Your task to perform on an android device: What is the news today? Image 0: 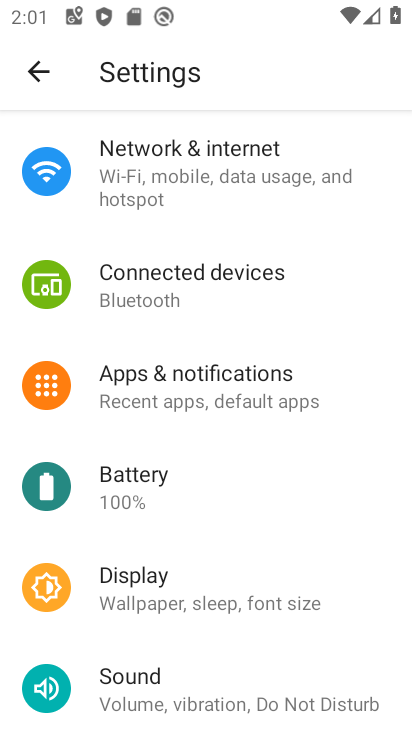
Step 0: press home button
Your task to perform on an android device: What is the news today? Image 1: 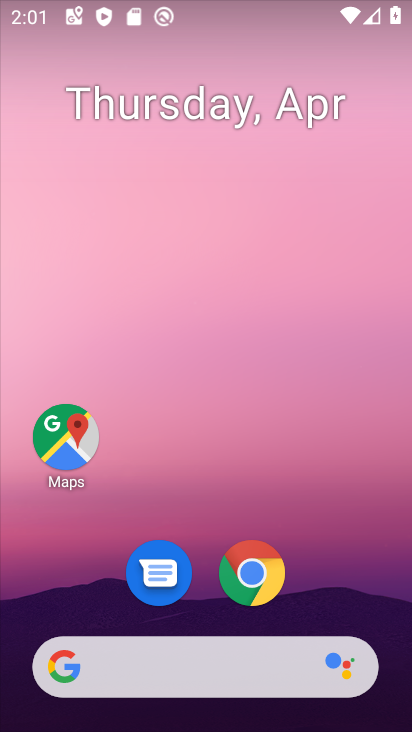
Step 1: drag from (333, 535) to (238, 23)
Your task to perform on an android device: What is the news today? Image 2: 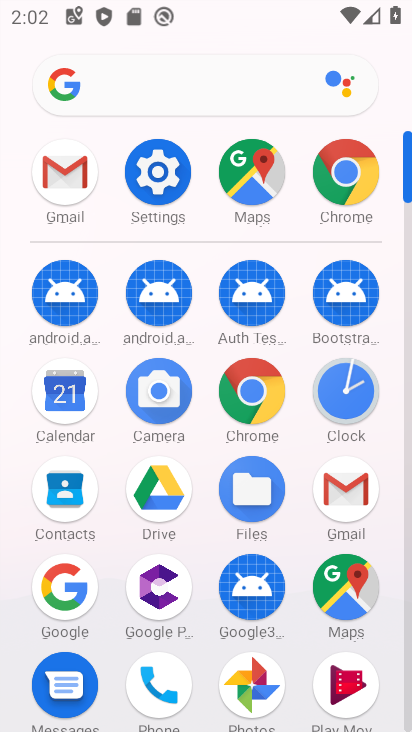
Step 2: click (247, 389)
Your task to perform on an android device: What is the news today? Image 3: 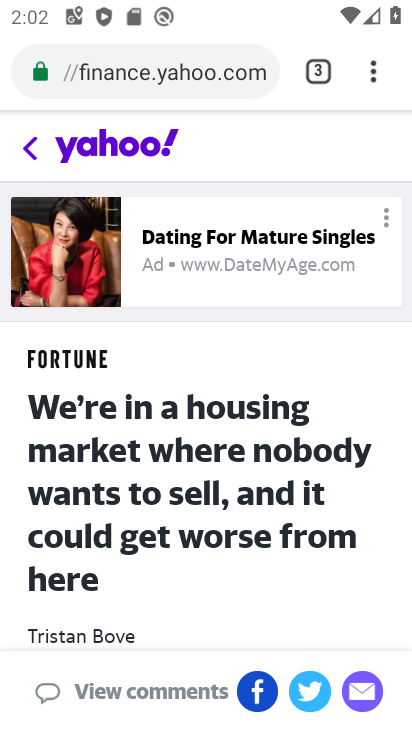
Step 3: press back button
Your task to perform on an android device: What is the news today? Image 4: 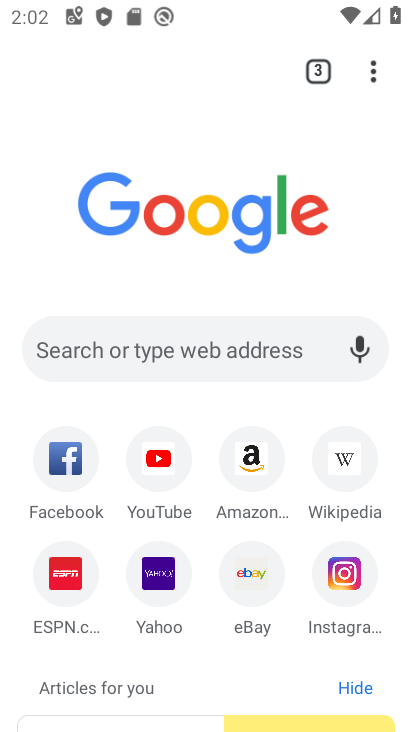
Step 4: drag from (115, 638) to (141, 167)
Your task to perform on an android device: What is the news today? Image 5: 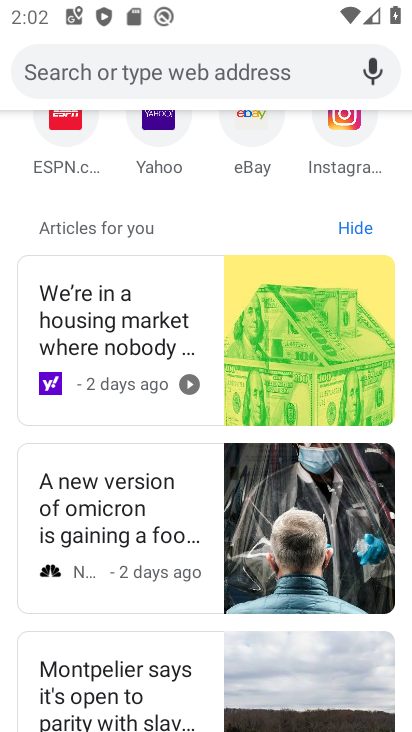
Step 5: click (164, 337)
Your task to perform on an android device: What is the news today? Image 6: 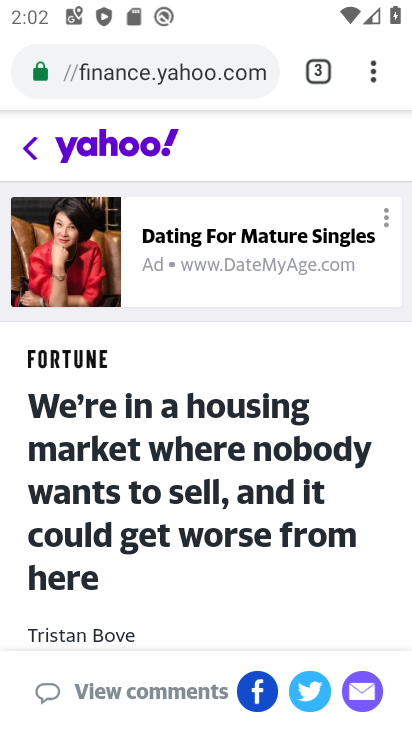
Step 6: task complete